Your task to perform on an android device: Open calendar and show me the second week of next month Image 0: 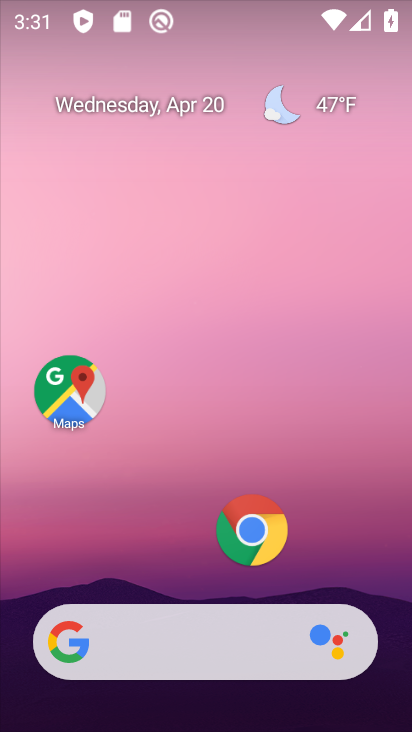
Step 0: drag from (178, 474) to (311, 24)
Your task to perform on an android device: Open calendar and show me the second week of next month Image 1: 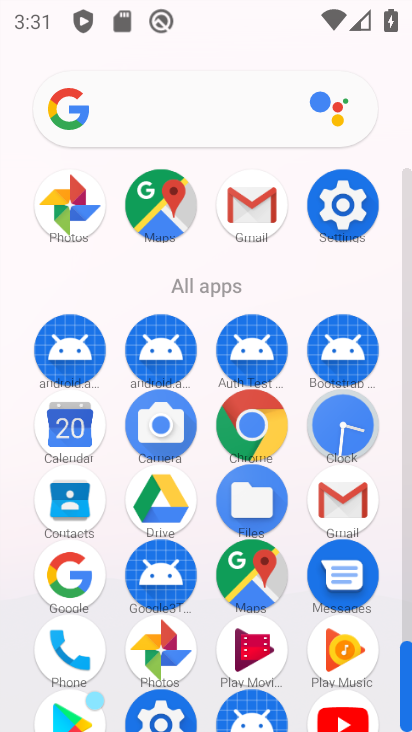
Step 1: click (69, 433)
Your task to perform on an android device: Open calendar and show me the second week of next month Image 2: 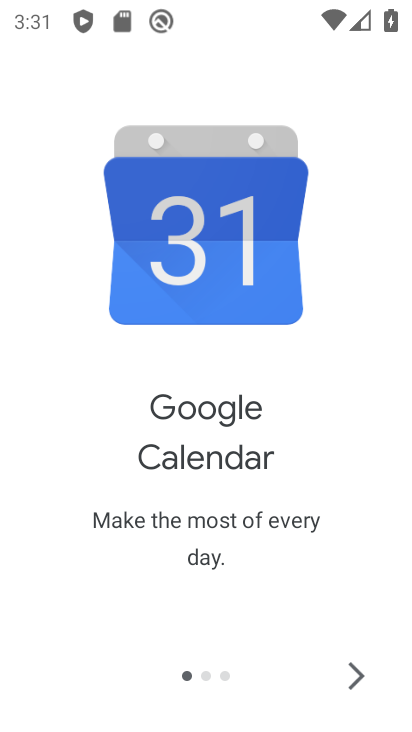
Step 2: click (363, 662)
Your task to perform on an android device: Open calendar and show me the second week of next month Image 3: 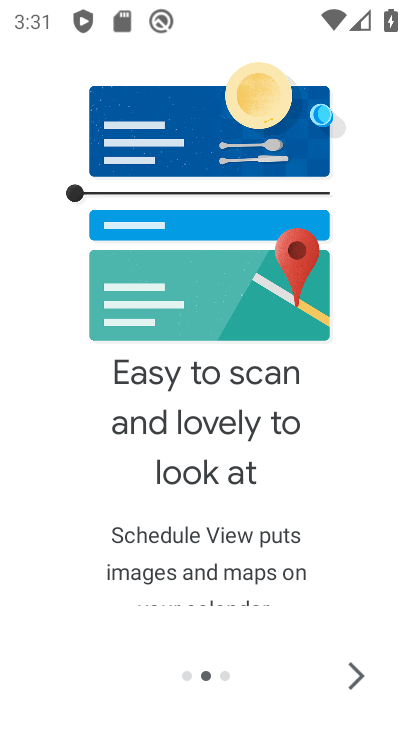
Step 3: click (363, 662)
Your task to perform on an android device: Open calendar and show me the second week of next month Image 4: 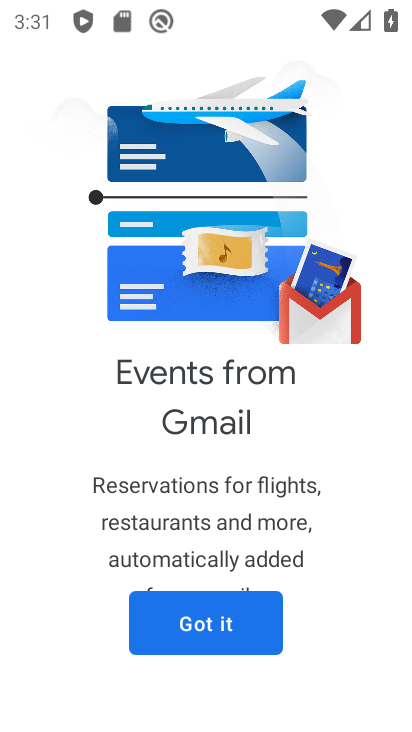
Step 4: click (196, 648)
Your task to perform on an android device: Open calendar and show me the second week of next month Image 5: 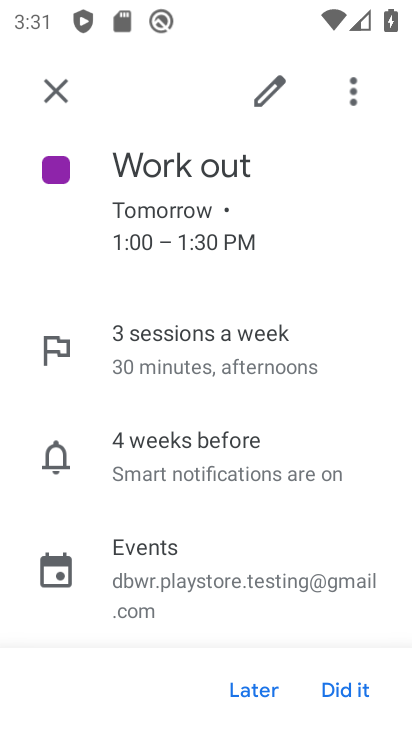
Step 5: click (66, 94)
Your task to perform on an android device: Open calendar and show me the second week of next month Image 6: 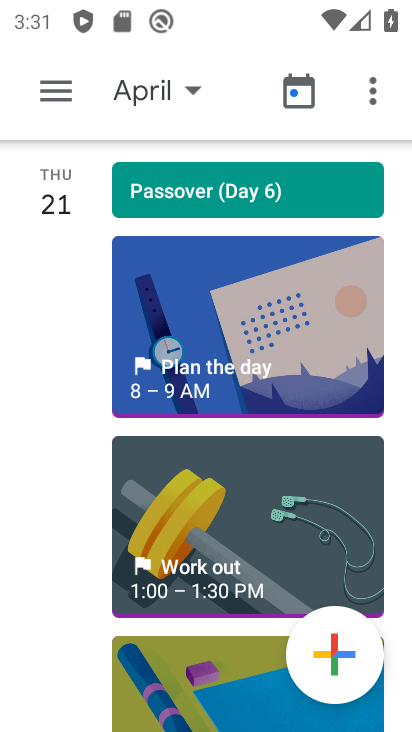
Step 6: click (196, 87)
Your task to perform on an android device: Open calendar and show me the second week of next month Image 7: 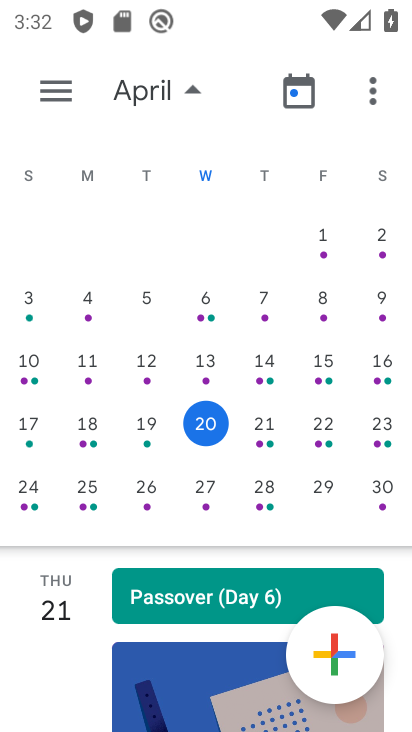
Step 7: drag from (382, 380) to (105, 362)
Your task to perform on an android device: Open calendar and show me the second week of next month Image 8: 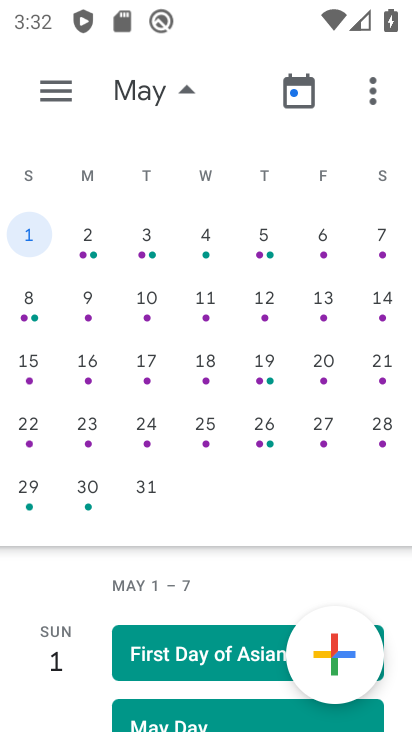
Step 8: click (88, 298)
Your task to perform on an android device: Open calendar and show me the second week of next month Image 9: 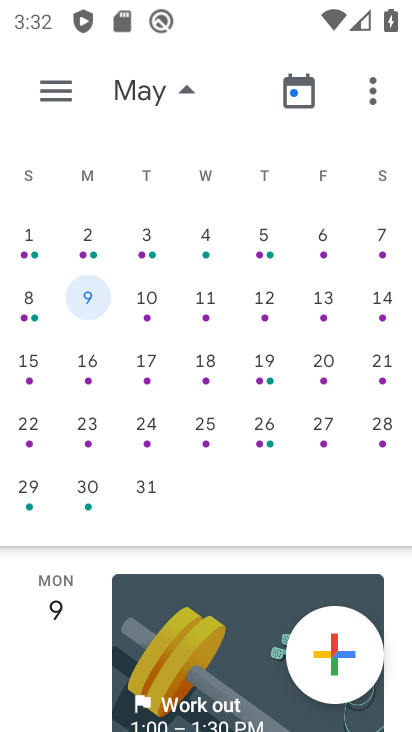
Step 9: task complete